Your task to perform on an android device: Open maps Image 0: 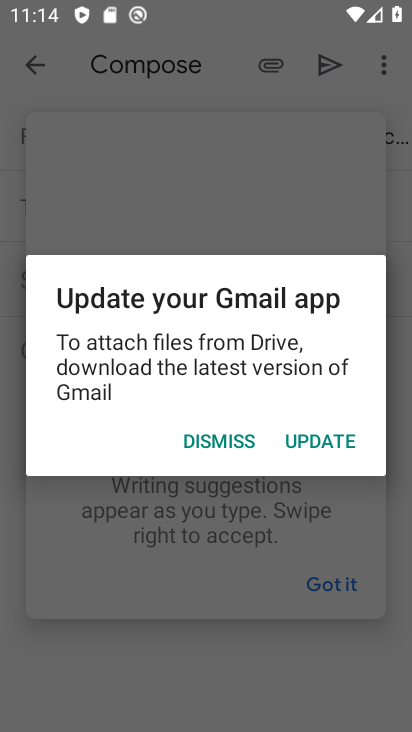
Step 0: press home button
Your task to perform on an android device: Open maps Image 1: 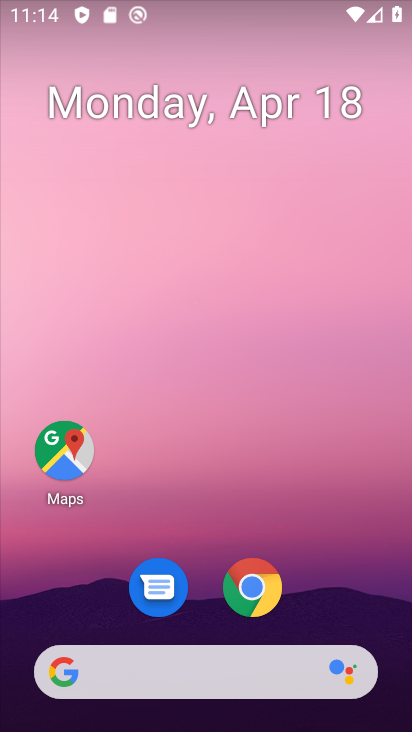
Step 1: drag from (342, 602) to (358, 74)
Your task to perform on an android device: Open maps Image 2: 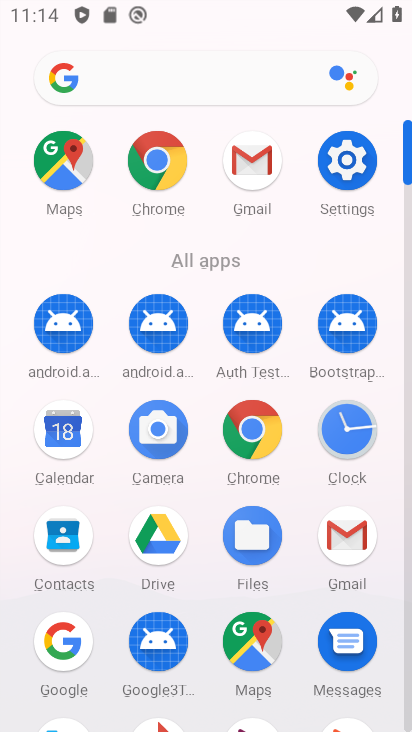
Step 2: click (72, 178)
Your task to perform on an android device: Open maps Image 3: 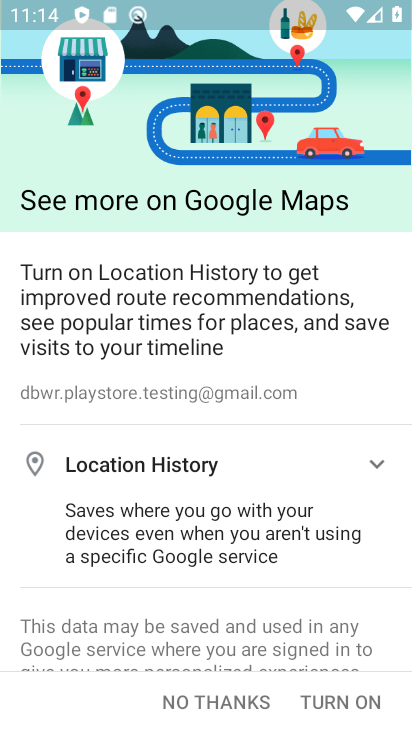
Step 3: task complete